Your task to perform on an android device: Show the shopping cart on amazon.com. Search for "panasonic triple a" on amazon.com, select the first entry, add it to the cart, then select checkout. Image 0: 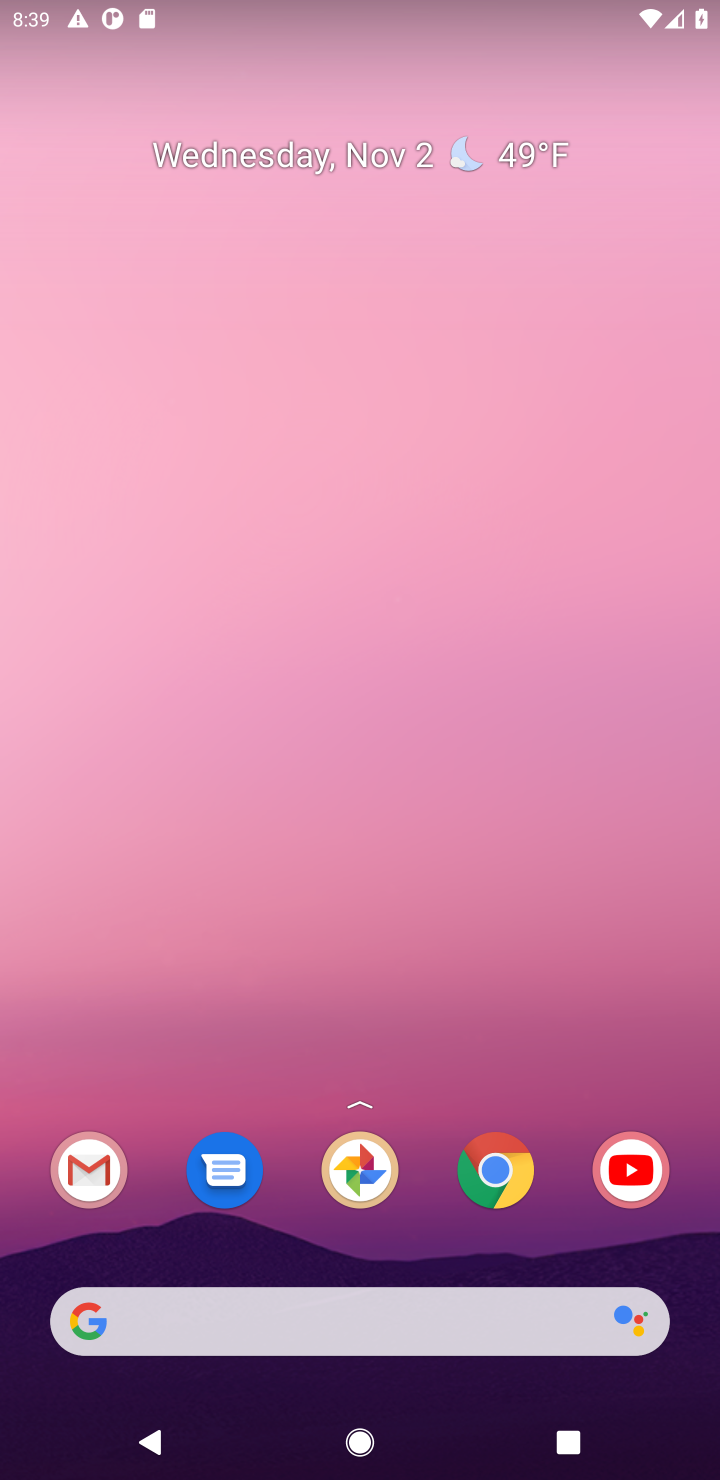
Step 0: click (514, 1186)
Your task to perform on an android device: Show the shopping cart on amazon.com. Search for "panasonic triple a" on amazon.com, select the first entry, add it to the cart, then select checkout. Image 1: 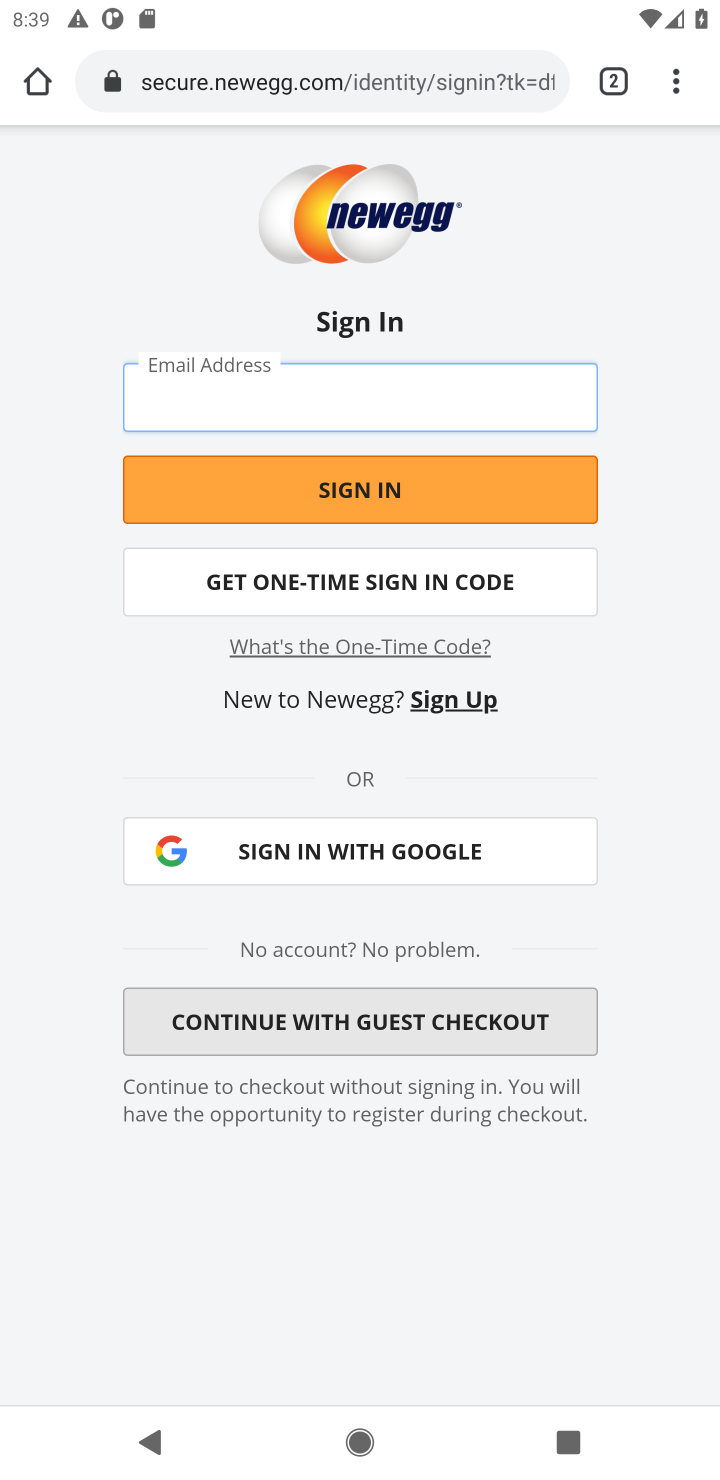
Step 1: click (356, 79)
Your task to perform on an android device: Show the shopping cart on amazon.com. Search for "panasonic triple a" on amazon.com, select the first entry, add it to the cart, then select checkout. Image 2: 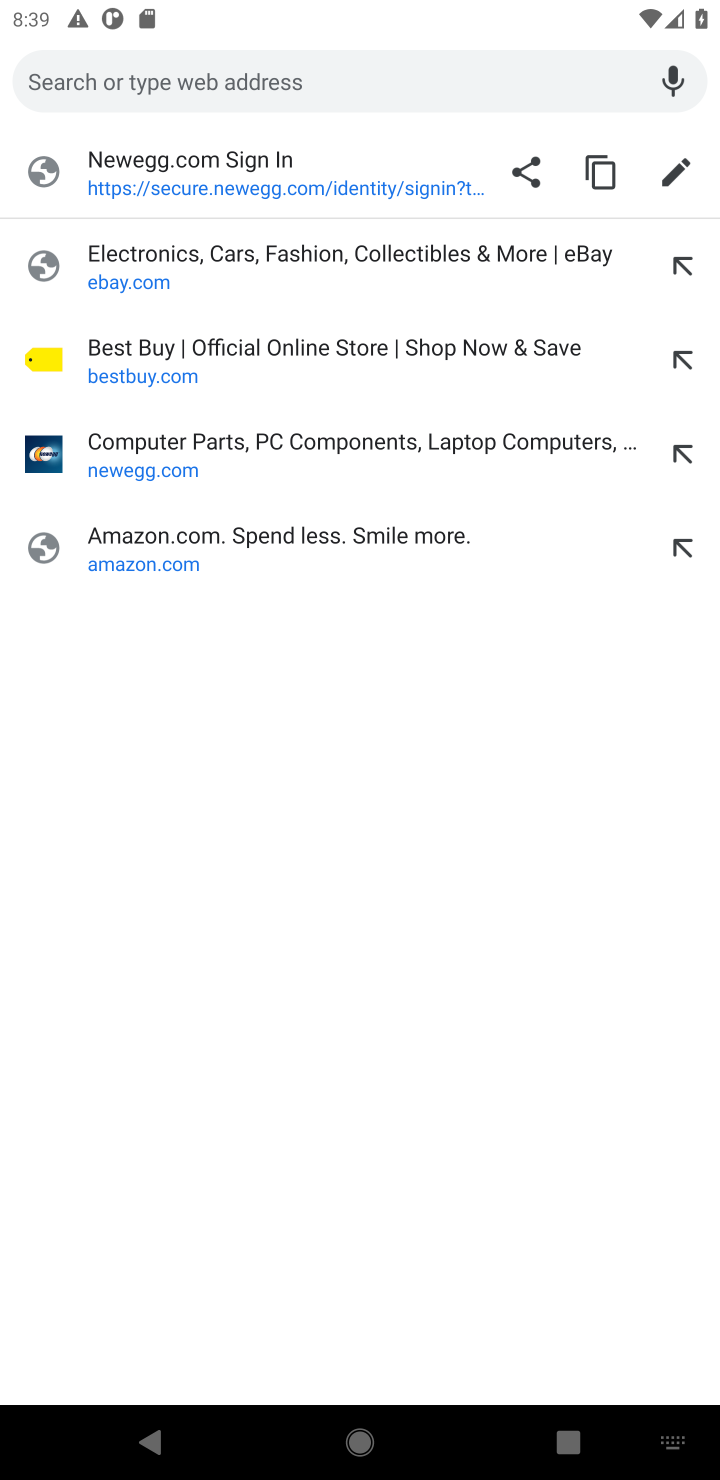
Step 2: type "amazon.com"
Your task to perform on an android device: Show the shopping cart on amazon.com. Search for "panasonic triple a" on amazon.com, select the first entry, add it to the cart, then select checkout. Image 3: 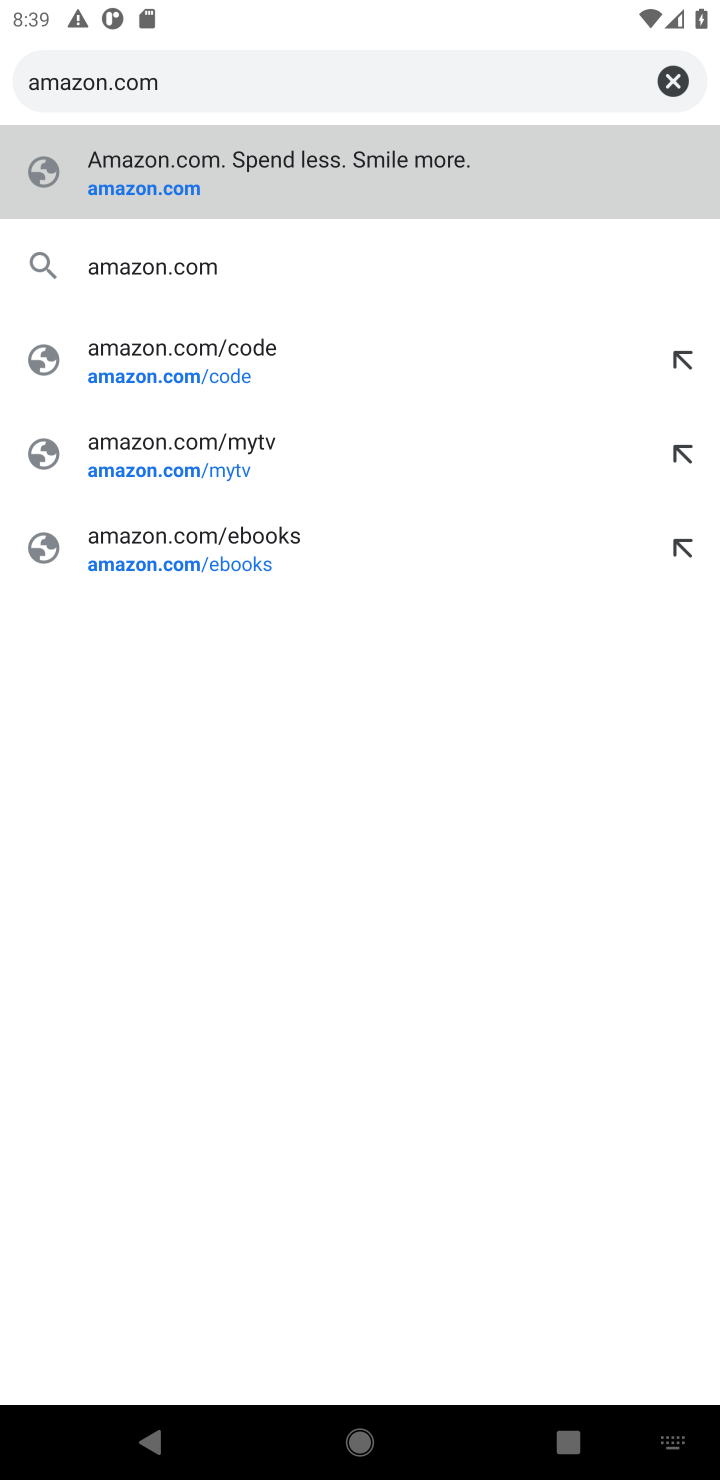
Step 3: type ""
Your task to perform on an android device: Show the shopping cart on amazon.com. Search for "panasonic triple a" on amazon.com, select the first entry, add it to the cart, then select checkout. Image 4: 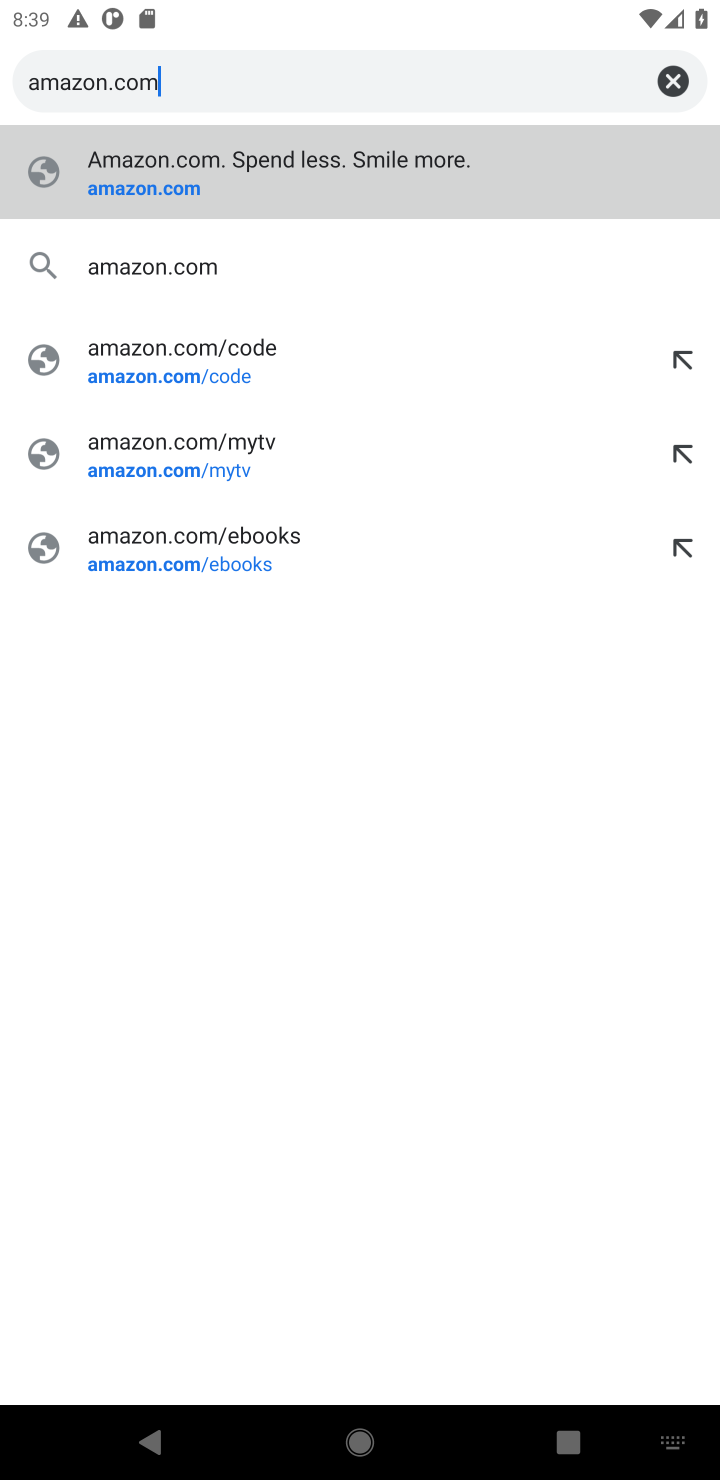
Step 4: press enter
Your task to perform on an android device: Show the shopping cart on amazon.com. Search for "panasonic triple a" on amazon.com, select the first entry, add it to the cart, then select checkout. Image 5: 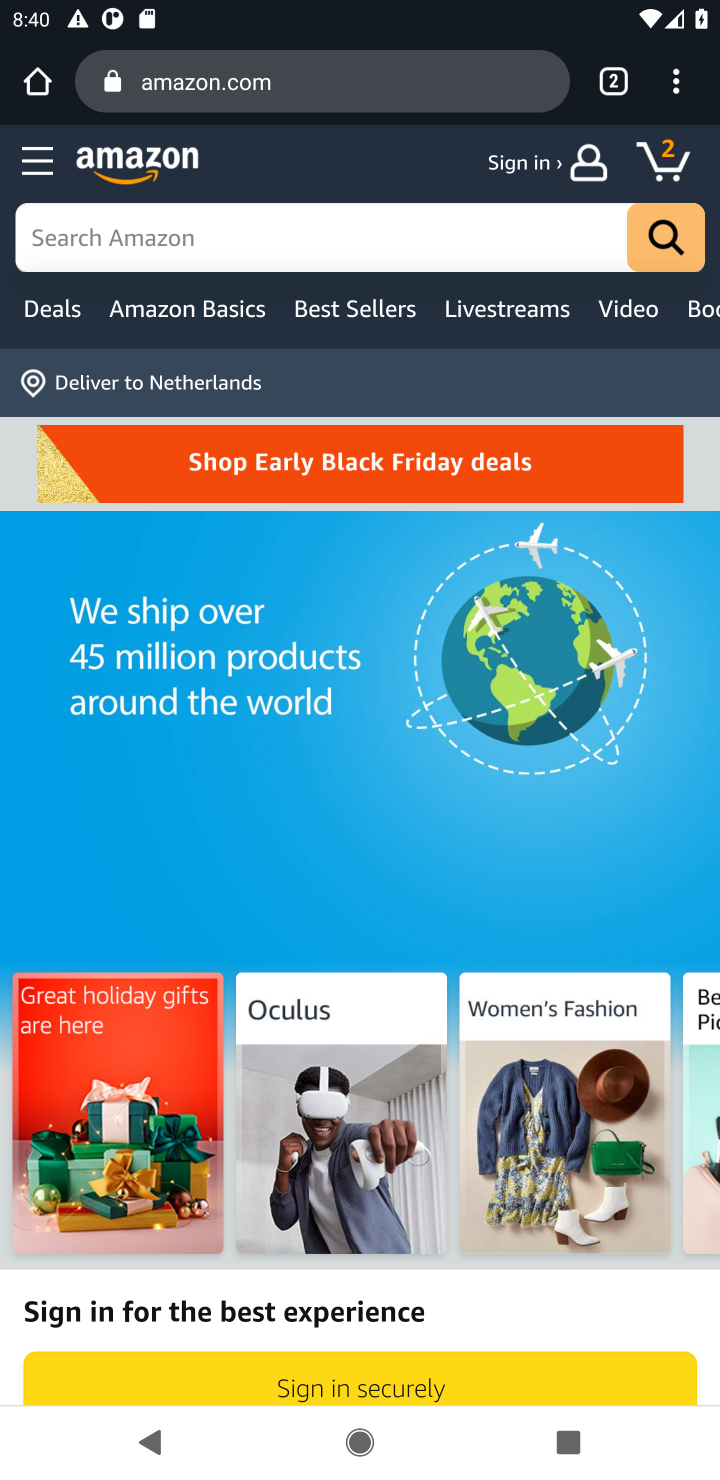
Step 5: click (637, 155)
Your task to perform on an android device: Show the shopping cart on amazon.com. Search for "panasonic triple a" on amazon.com, select the first entry, add it to the cart, then select checkout. Image 6: 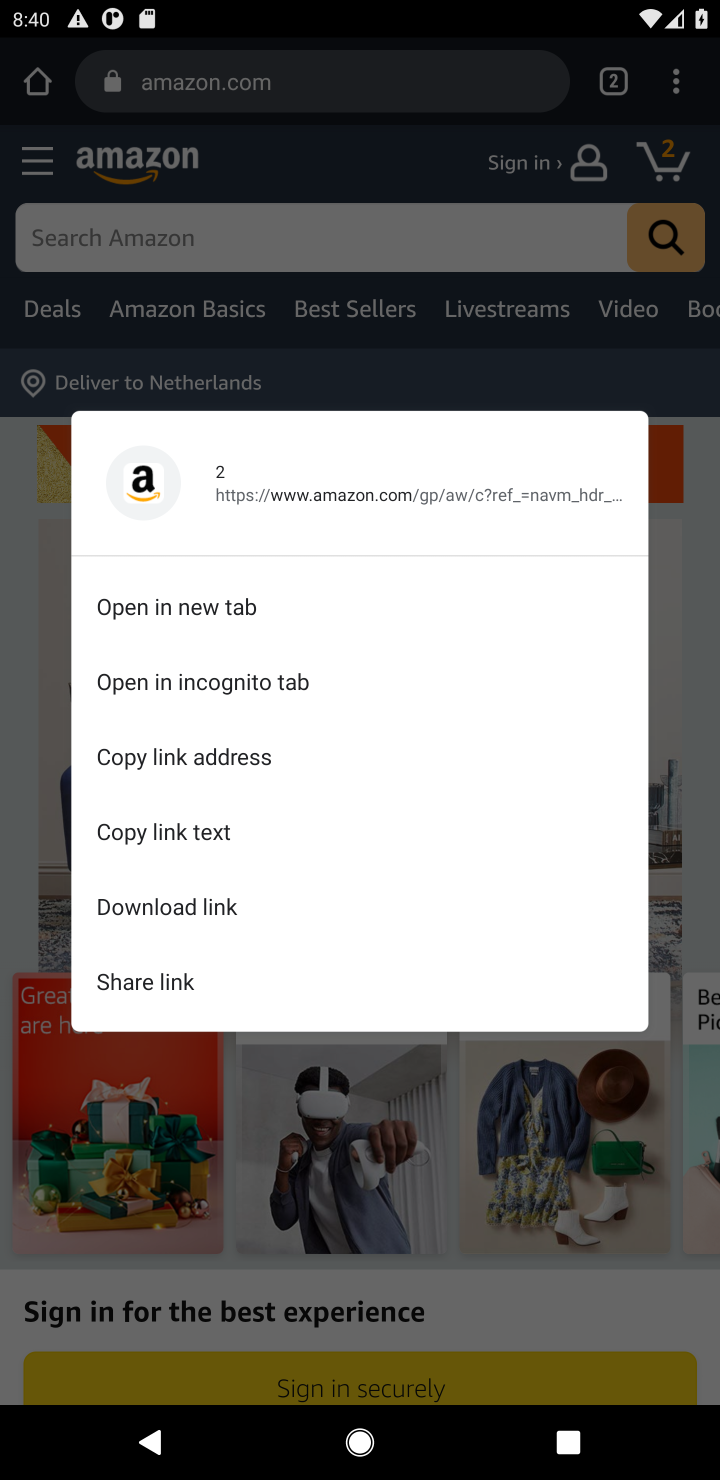
Step 6: click (488, 264)
Your task to perform on an android device: Show the shopping cart on amazon.com. Search for "panasonic triple a" on amazon.com, select the first entry, add it to the cart, then select checkout. Image 7: 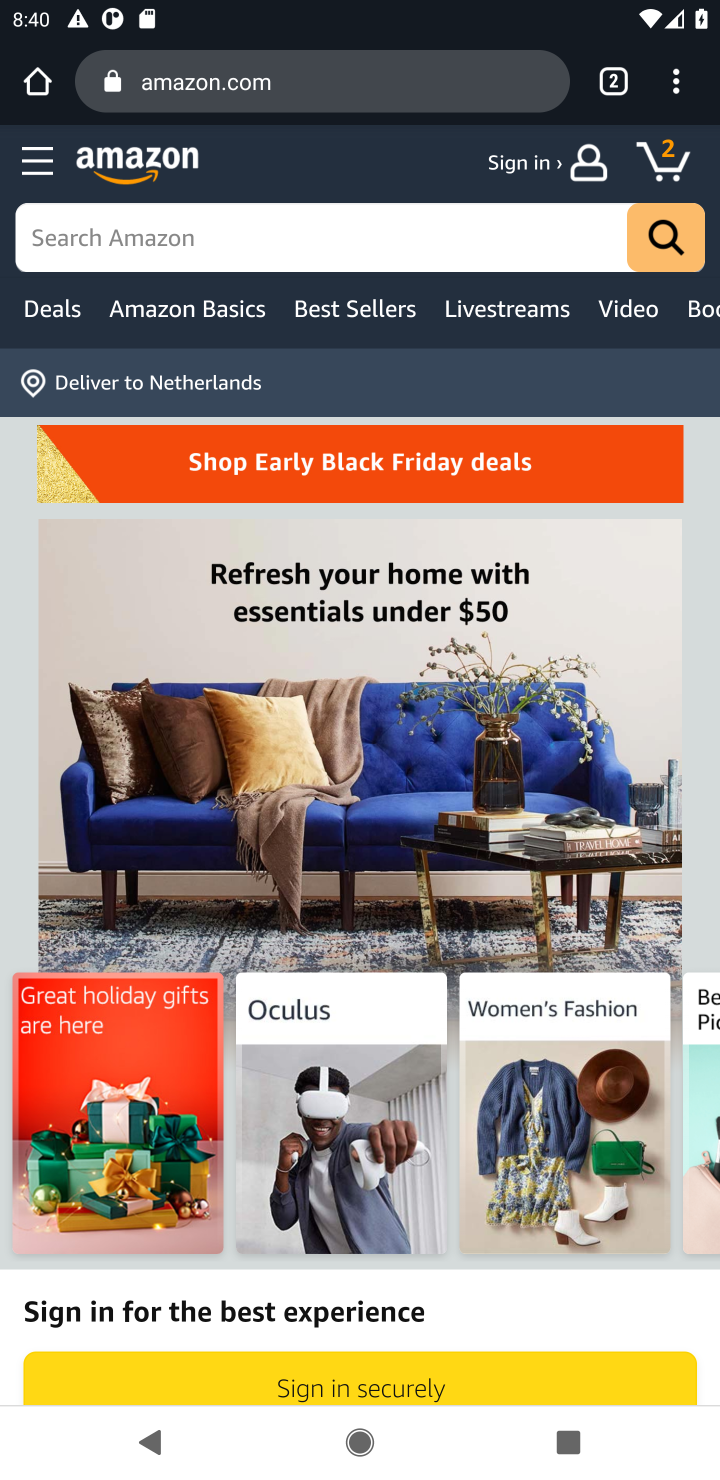
Step 7: click (659, 150)
Your task to perform on an android device: Show the shopping cart on amazon.com. Search for "panasonic triple a" on amazon.com, select the first entry, add it to the cart, then select checkout. Image 8: 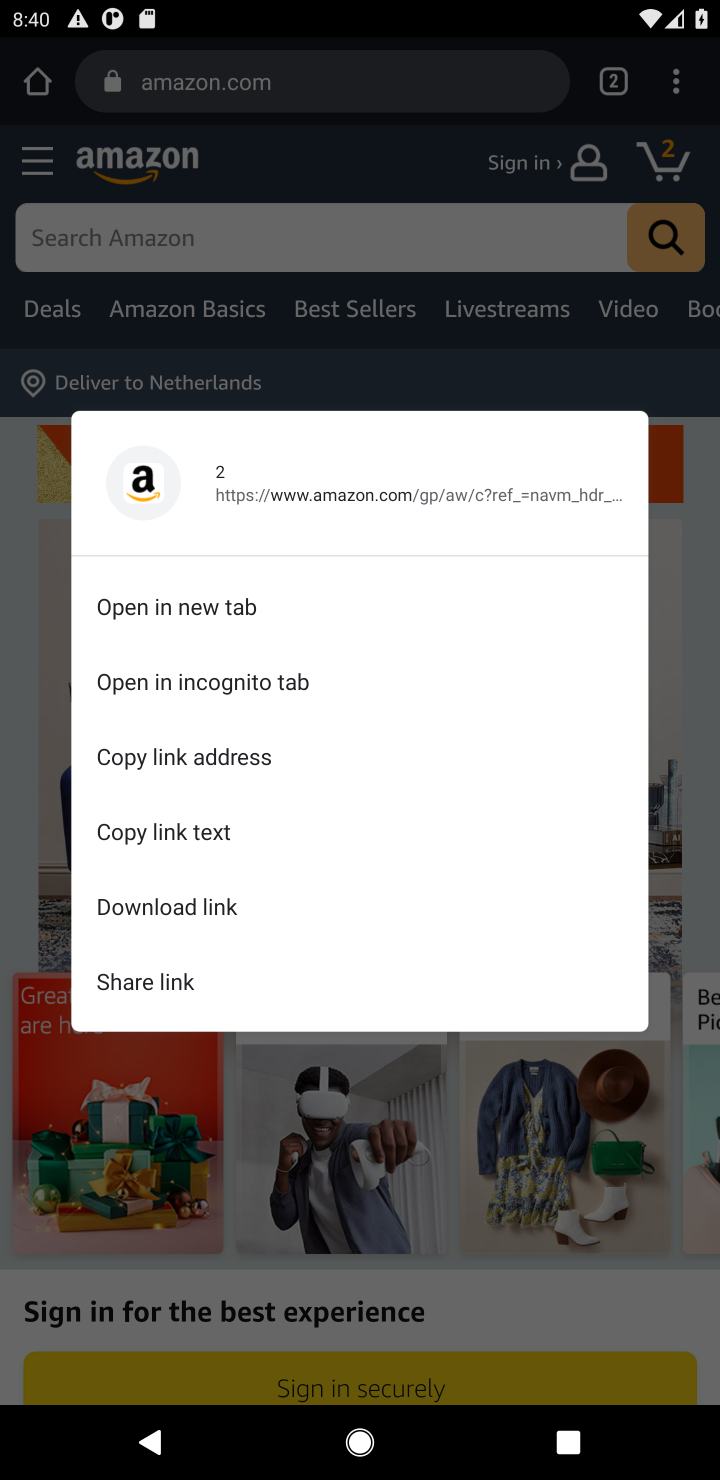
Step 8: click (666, 174)
Your task to perform on an android device: Show the shopping cart on amazon.com. Search for "panasonic triple a" on amazon.com, select the first entry, add it to the cart, then select checkout. Image 9: 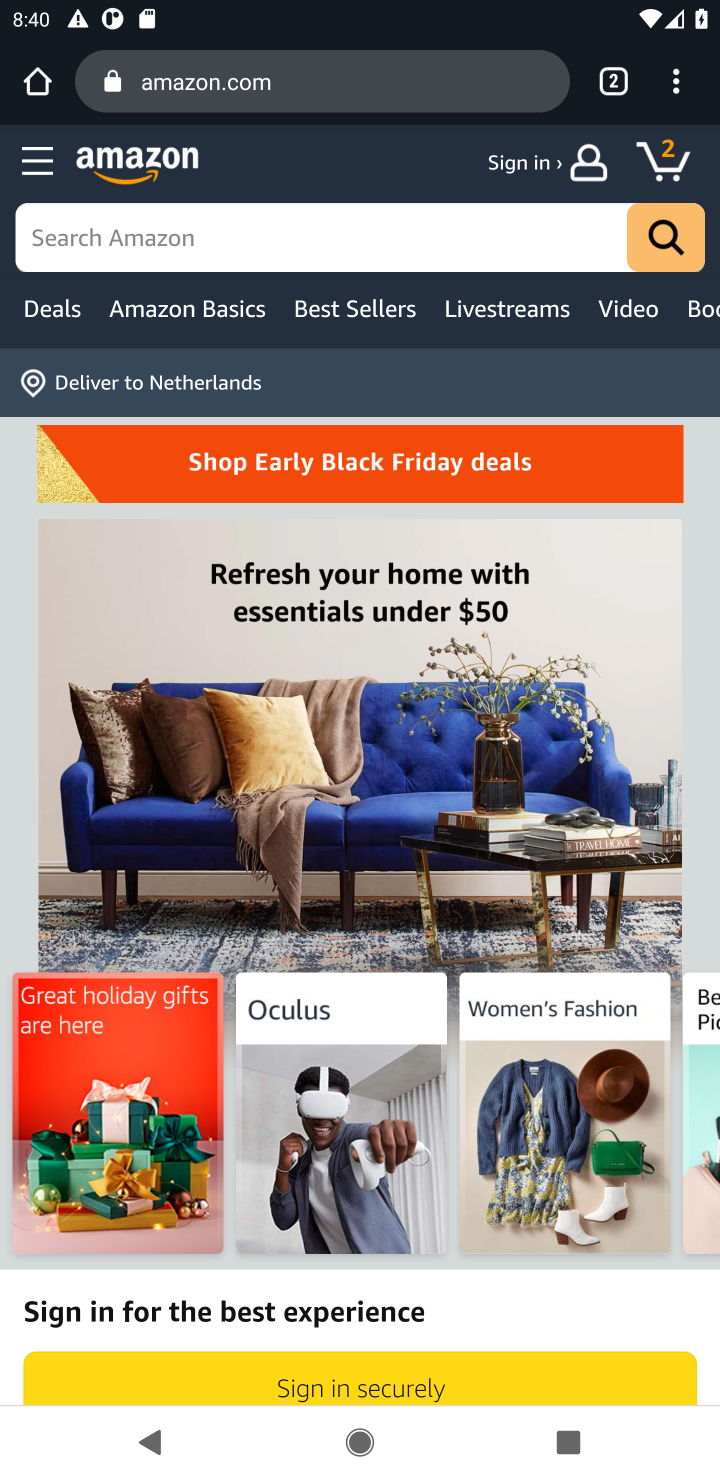
Step 9: click (683, 164)
Your task to perform on an android device: Show the shopping cart on amazon.com. Search for "panasonic triple a" on amazon.com, select the first entry, add it to the cart, then select checkout. Image 10: 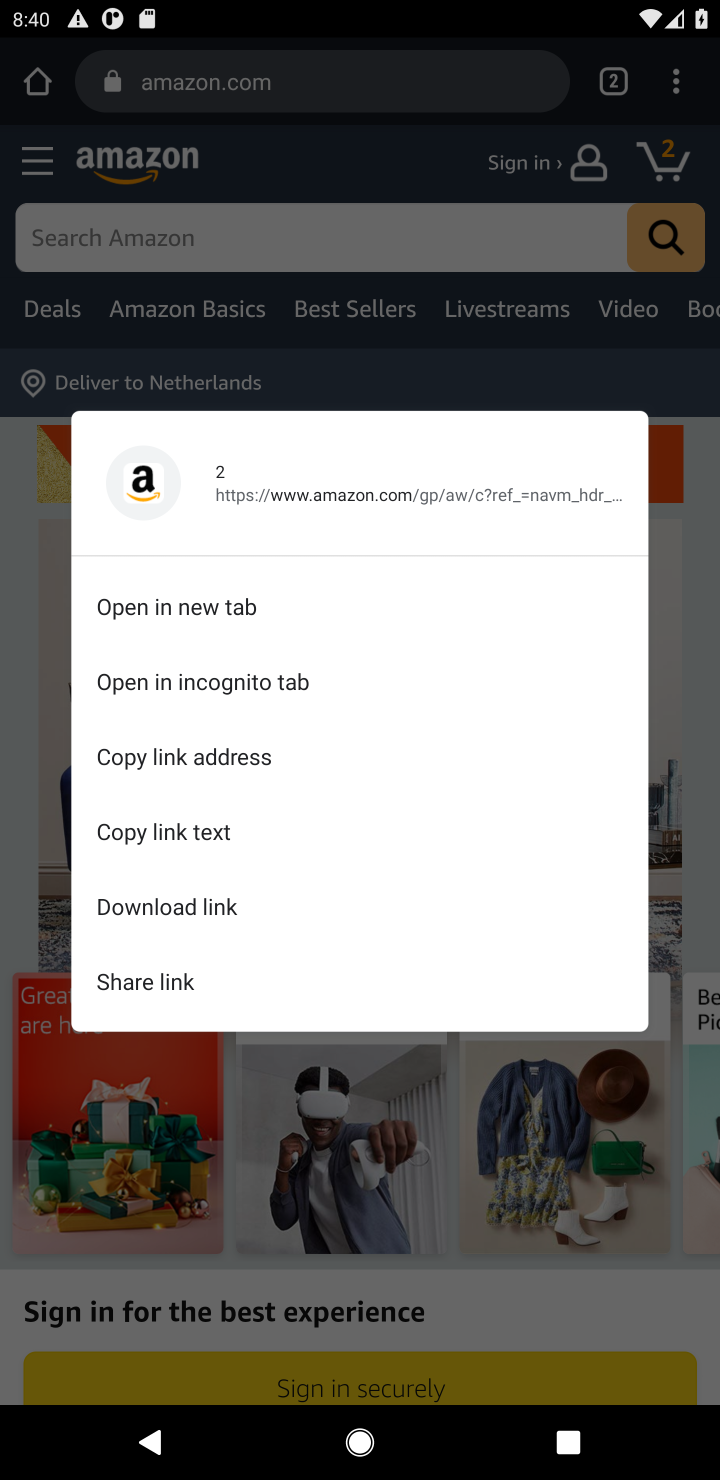
Step 10: click (683, 164)
Your task to perform on an android device: Show the shopping cart on amazon.com. Search for "panasonic triple a" on amazon.com, select the first entry, add it to the cart, then select checkout. Image 11: 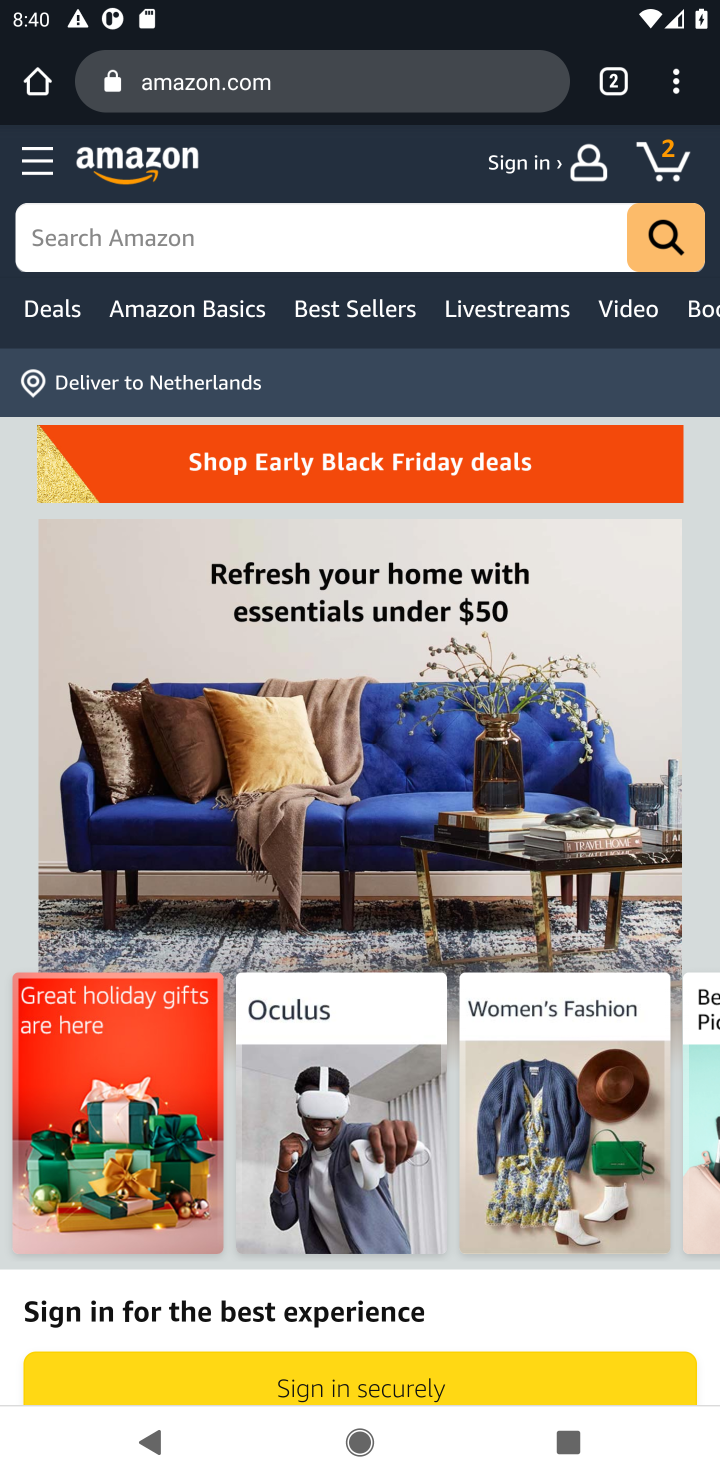
Step 11: click (667, 162)
Your task to perform on an android device: Show the shopping cart on amazon.com. Search for "panasonic triple a" on amazon.com, select the first entry, add it to the cart, then select checkout. Image 12: 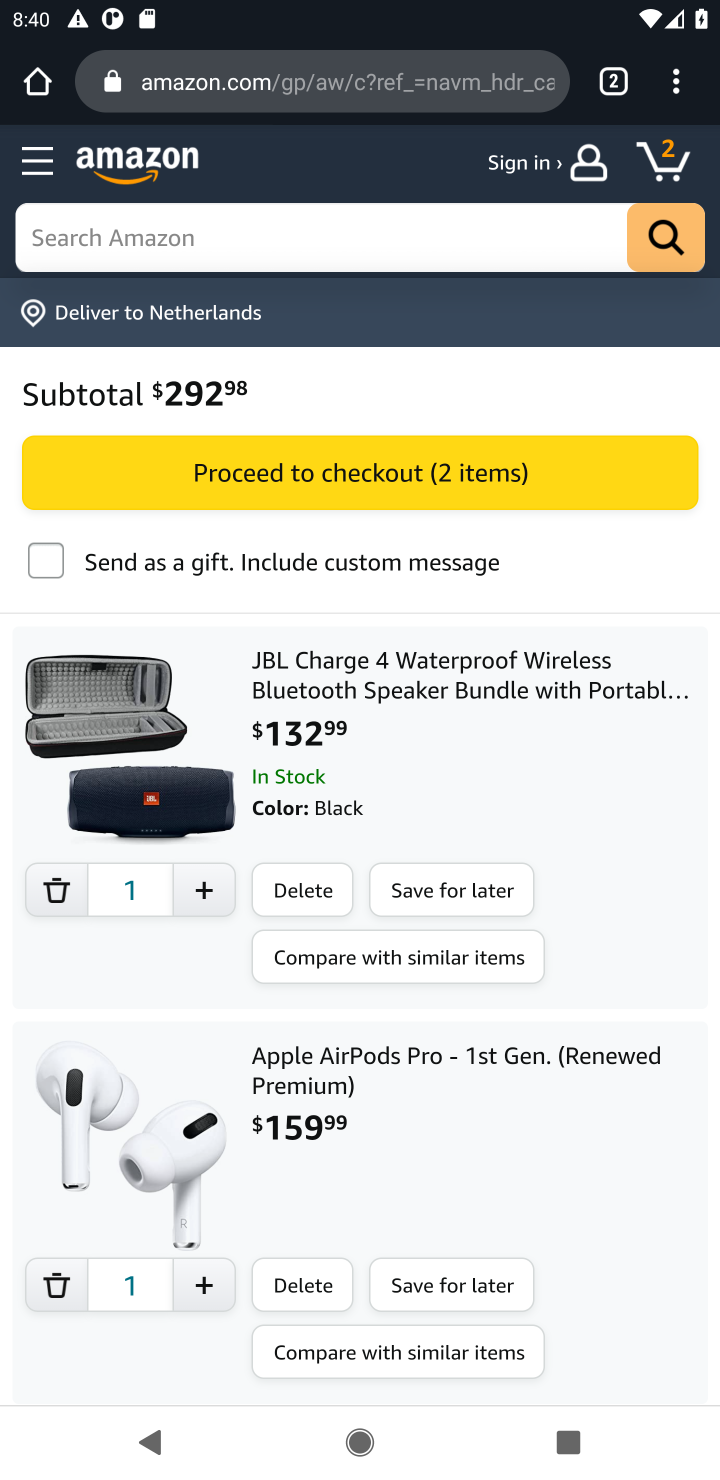
Step 12: click (366, 231)
Your task to perform on an android device: Show the shopping cart on amazon.com. Search for "panasonic triple a" on amazon.com, select the first entry, add it to the cart, then select checkout. Image 13: 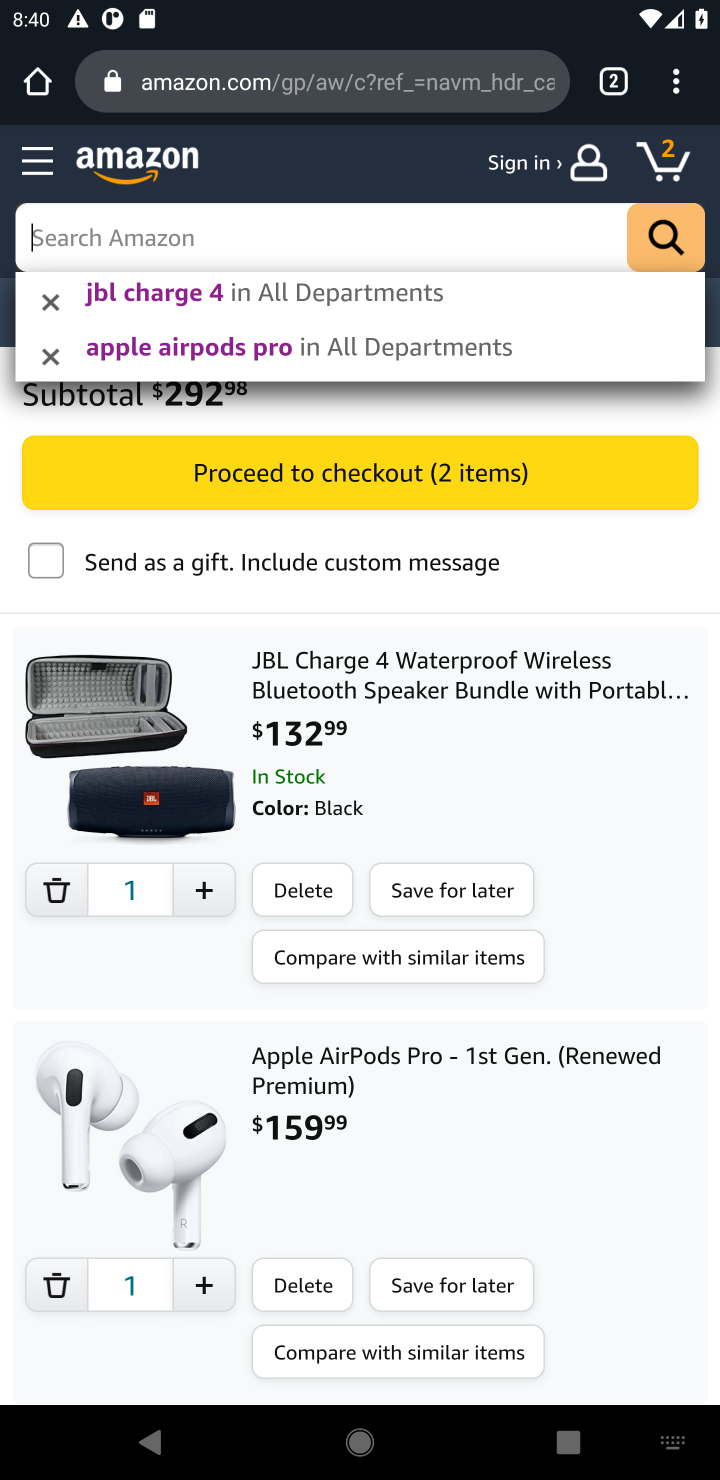
Step 13: type "panasonic triple a"
Your task to perform on an android device: Show the shopping cart on amazon.com. Search for "panasonic triple a" on amazon.com, select the first entry, add it to the cart, then select checkout. Image 14: 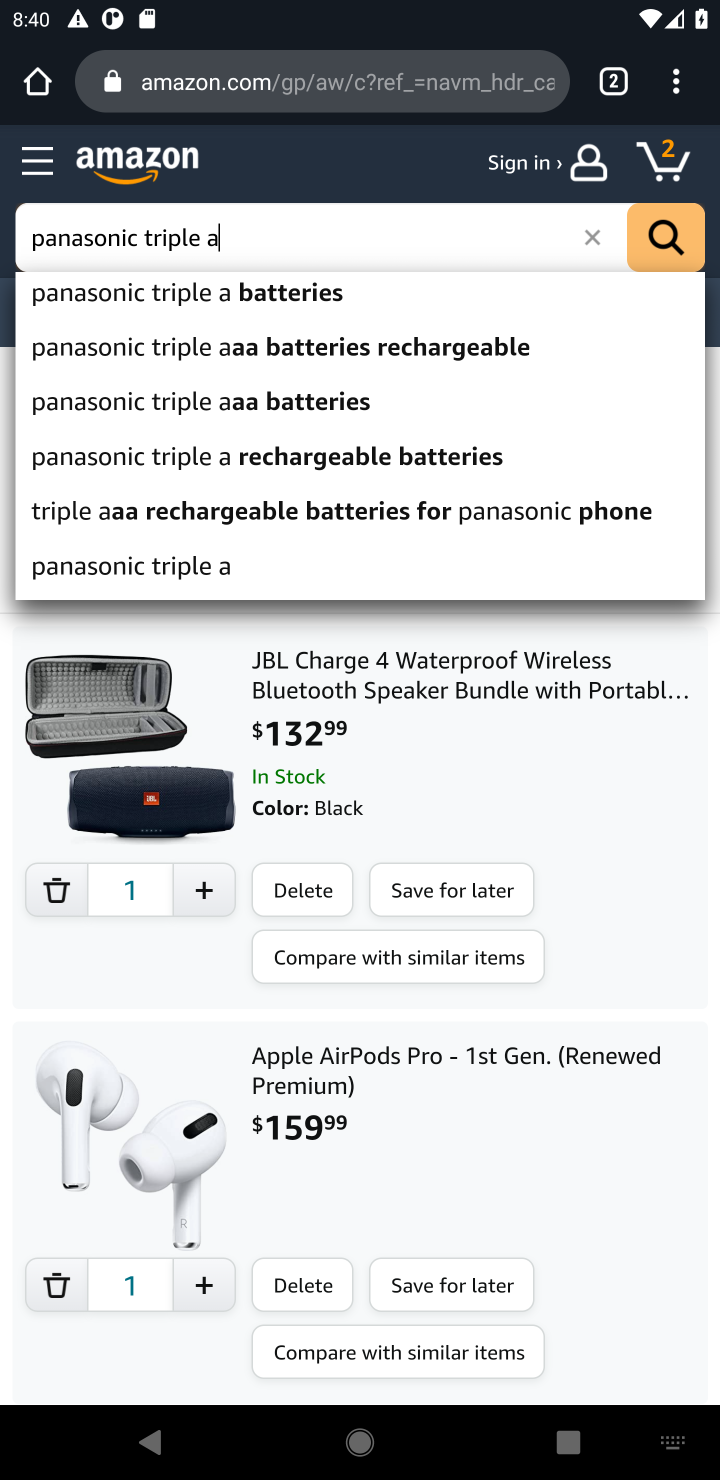
Step 14: press enter
Your task to perform on an android device: Show the shopping cart on amazon.com. Search for "panasonic triple a" on amazon.com, select the first entry, add it to the cart, then select checkout. Image 15: 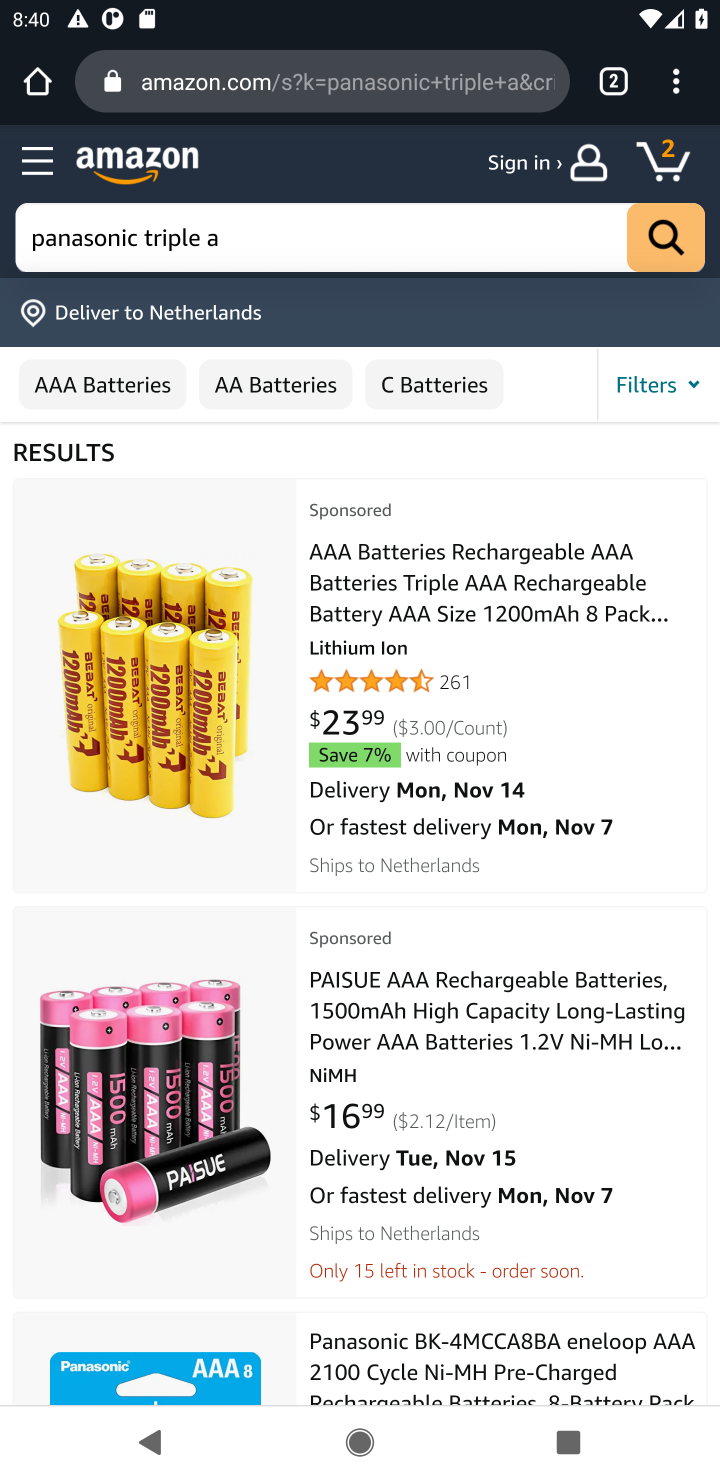
Step 15: click (560, 567)
Your task to perform on an android device: Show the shopping cart on amazon.com. Search for "panasonic triple a" on amazon.com, select the first entry, add it to the cart, then select checkout. Image 16: 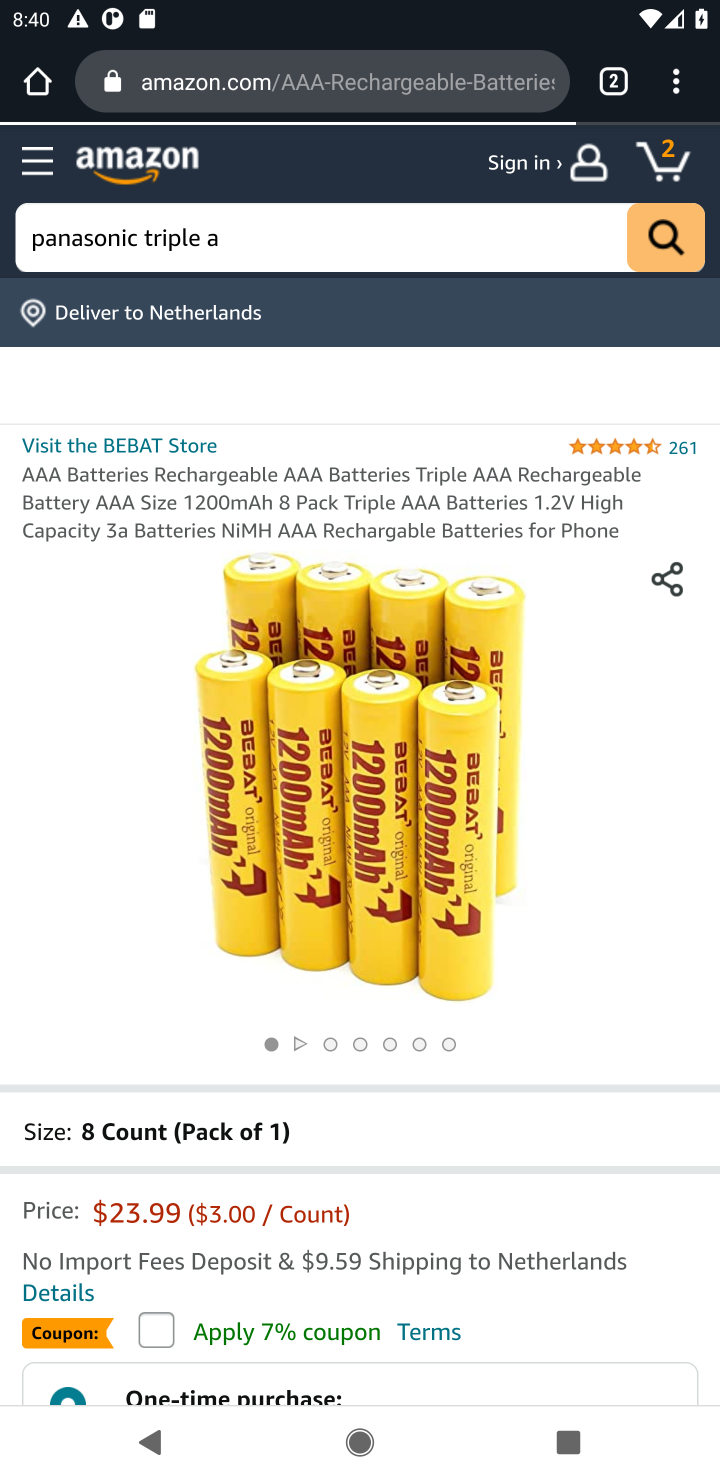
Step 16: drag from (499, 1160) to (461, 788)
Your task to perform on an android device: Show the shopping cart on amazon.com. Search for "panasonic triple a" on amazon.com, select the first entry, add it to the cart, then select checkout. Image 17: 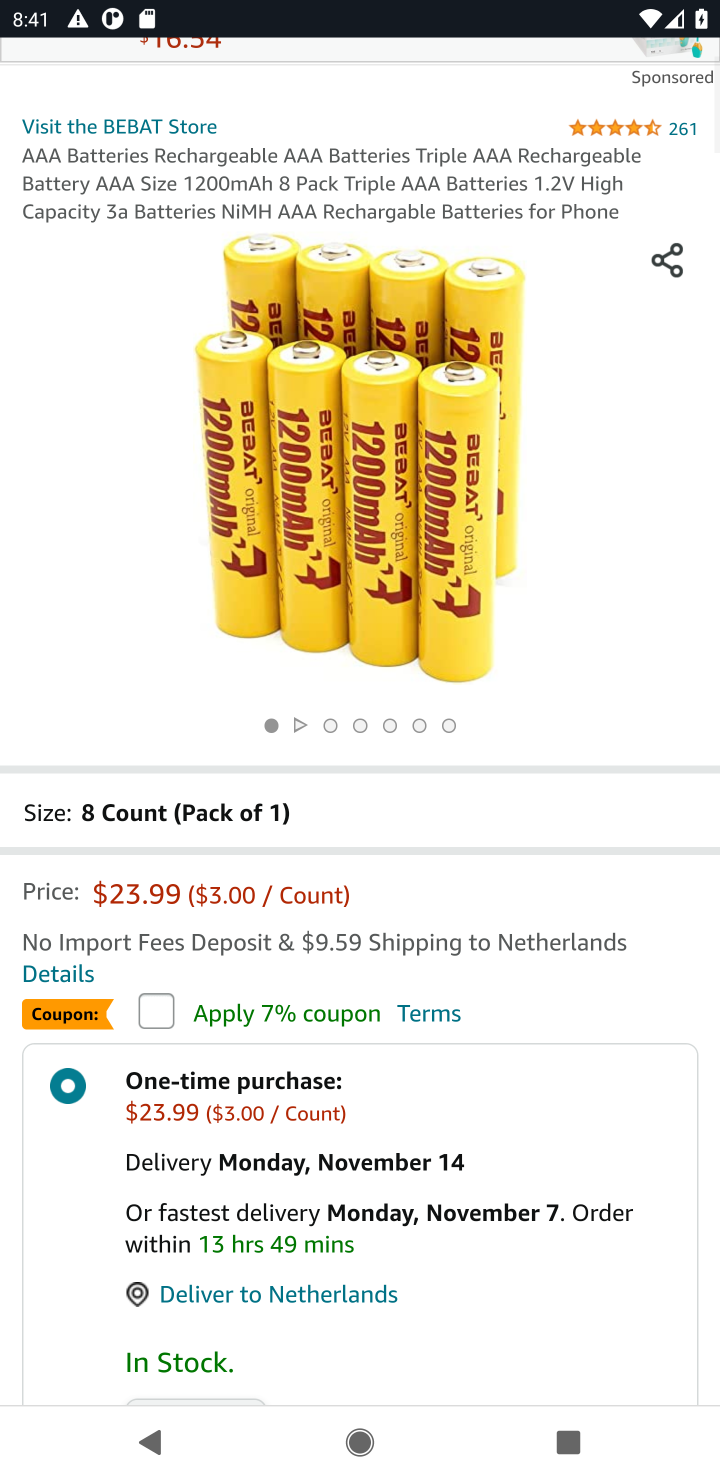
Step 17: drag from (396, 1367) to (371, 919)
Your task to perform on an android device: Show the shopping cart on amazon.com. Search for "panasonic triple a" on amazon.com, select the first entry, add it to the cart, then select checkout. Image 18: 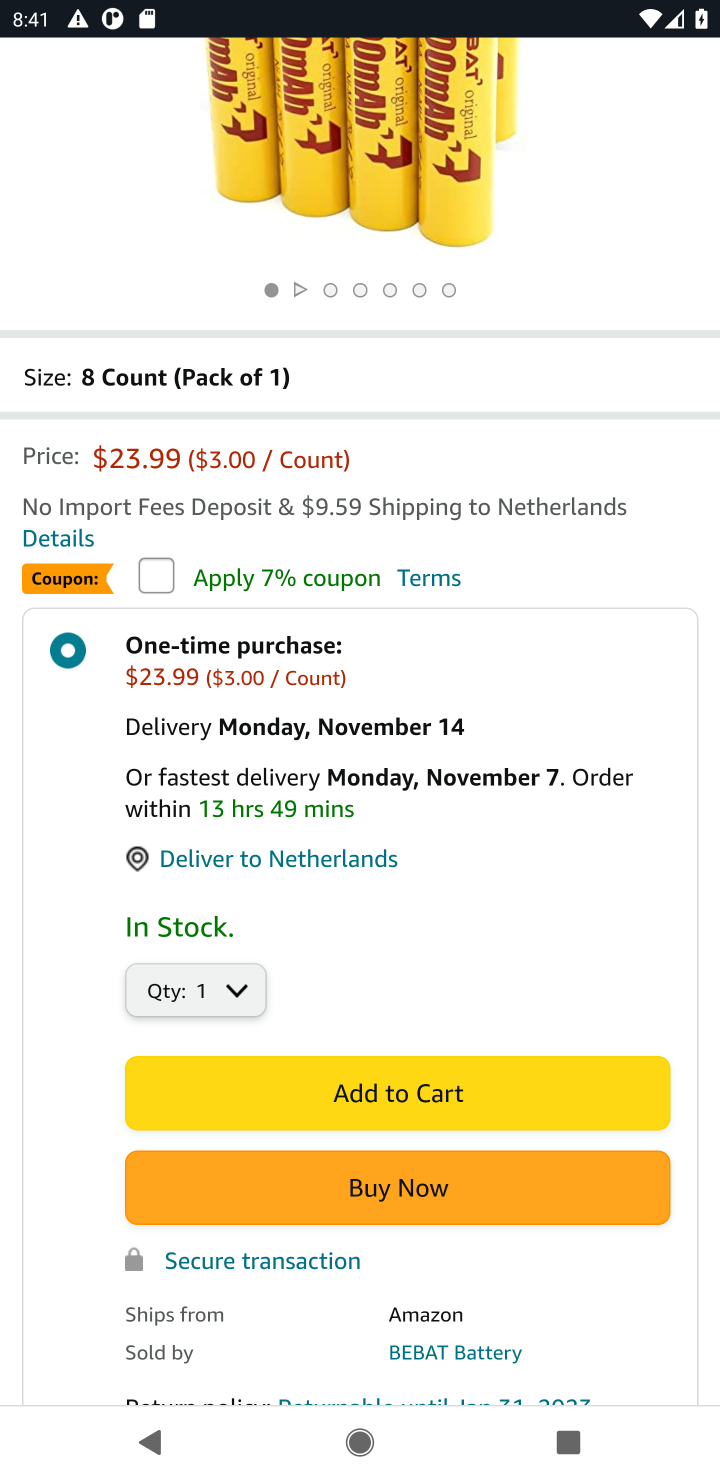
Step 18: click (392, 1106)
Your task to perform on an android device: Show the shopping cart on amazon.com. Search for "panasonic triple a" on amazon.com, select the first entry, add it to the cart, then select checkout. Image 19: 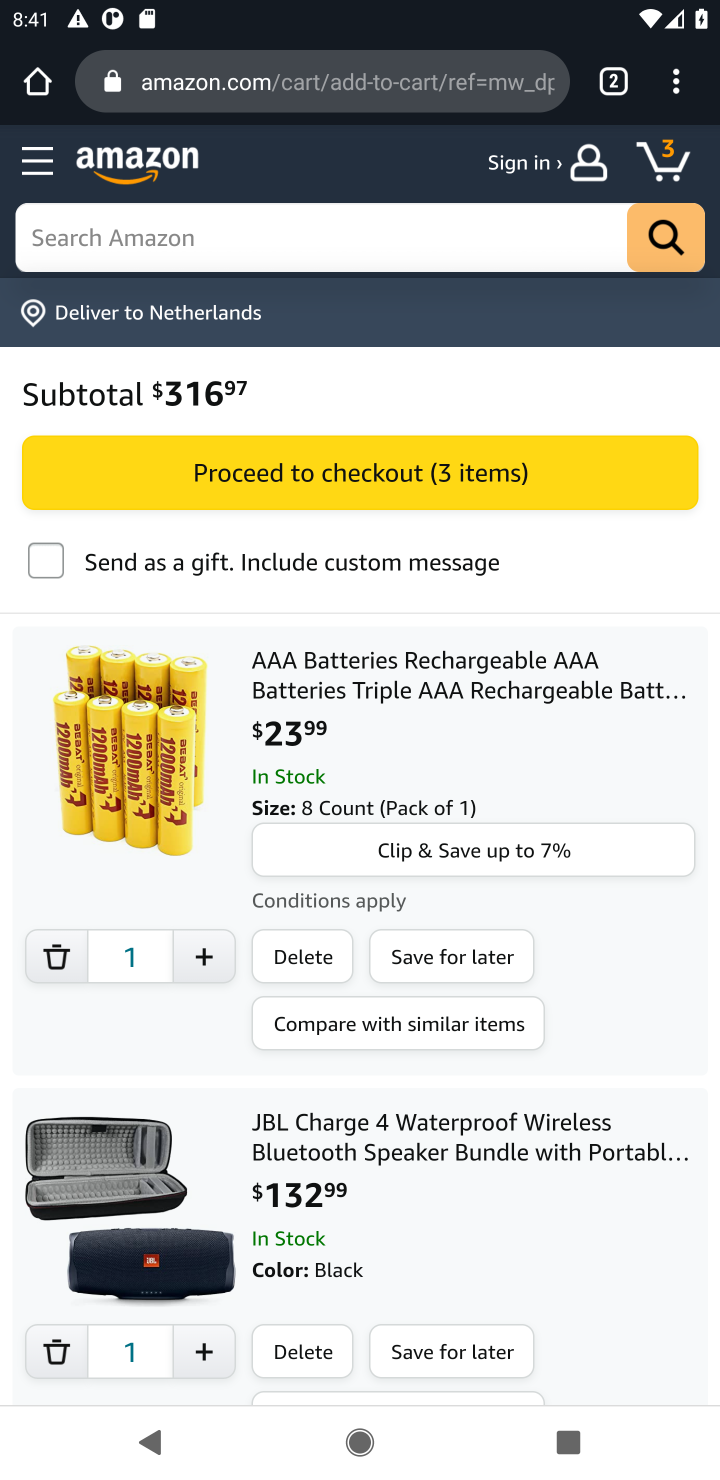
Step 19: click (501, 471)
Your task to perform on an android device: Show the shopping cart on amazon.com. Search for "panasonic triple a" on amazon.com, select the first entry, add it to the cart, then select checkout. Image 20: 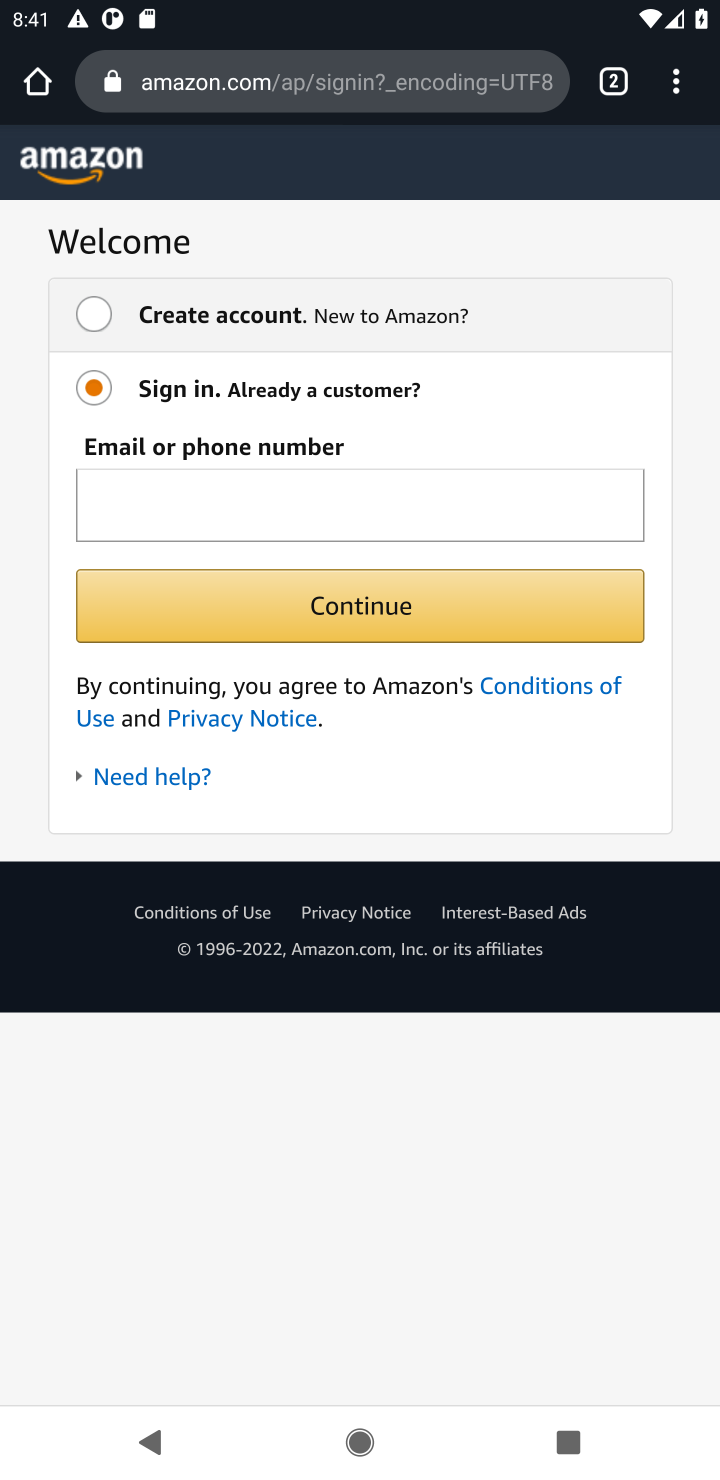
Step 20: task complete